Your task to perform on an android device: open a bookmark in the chrome app Image 0: 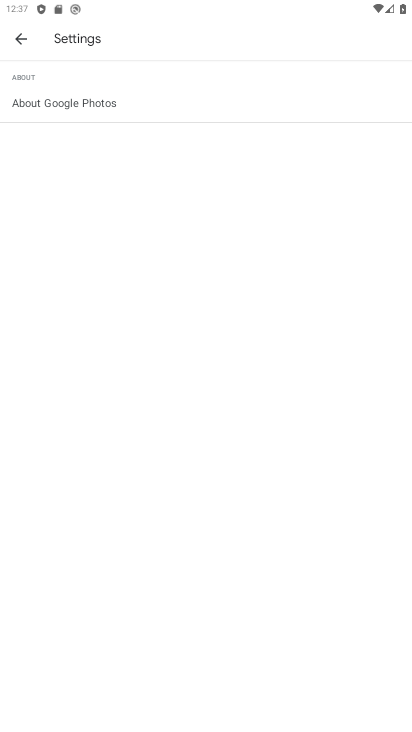
Step 0: press home button
Your task to perform on an android device: open a bookmark in the chrome app Image 1: 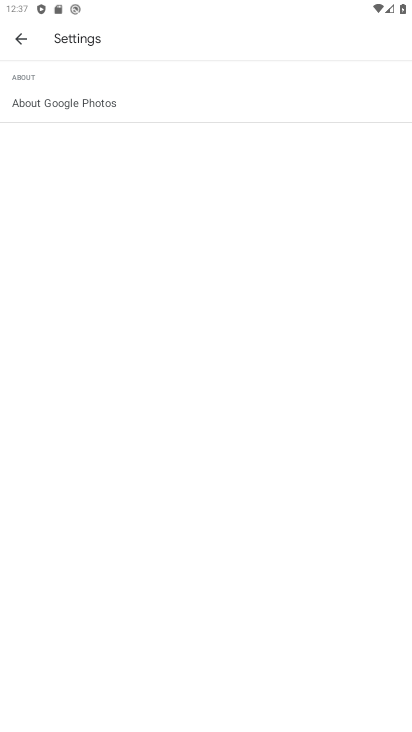
Step 1: press home button
Your task to perform on an android device: open a bookmark in the chrome app Image 2: 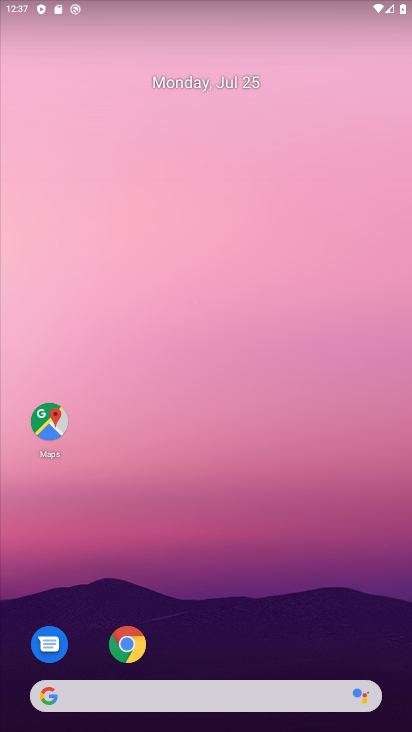
Step 2: drag from (208, 716) to (240, 3)
Your task to perform on an android device: open a bookmark in the chrome app Image 3: 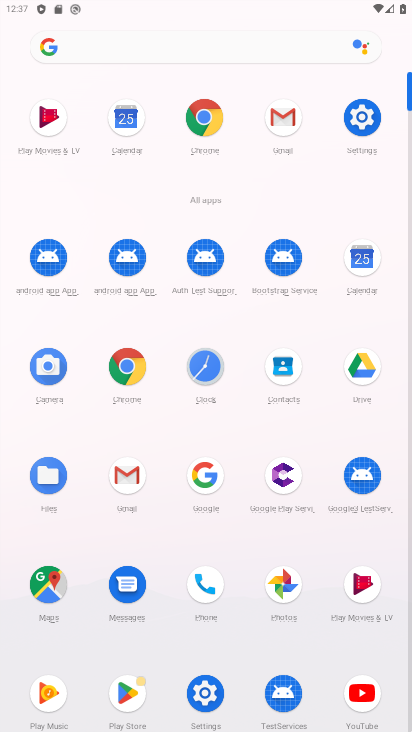
Step 3: click (128, 362)
Your task to perform on an android device: open a bookmark in the chrome app Image 4: 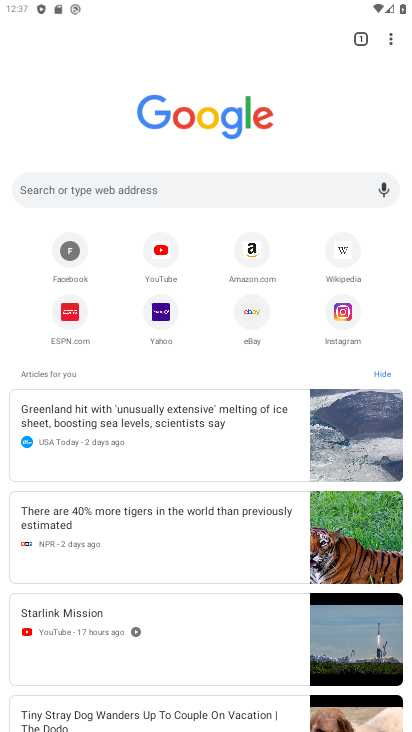
Step 4: click (391, 42)
Your task to perform on an android device: open a bookmark in the chrome app Image 5: 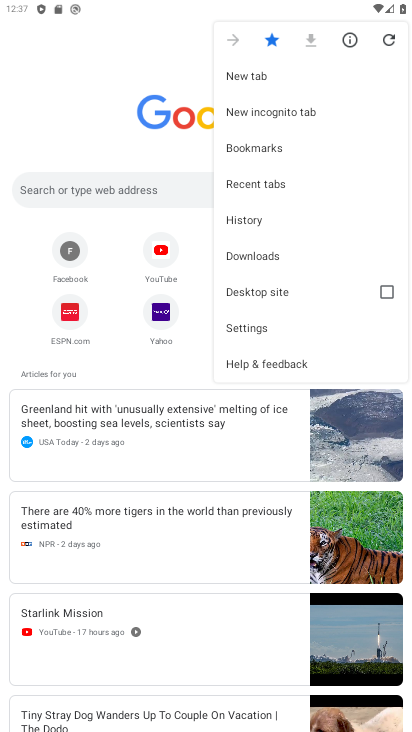
Step 5: click (249, 145)
Your task to perform on an android device: open a bookmark in the chrome app Image 6: 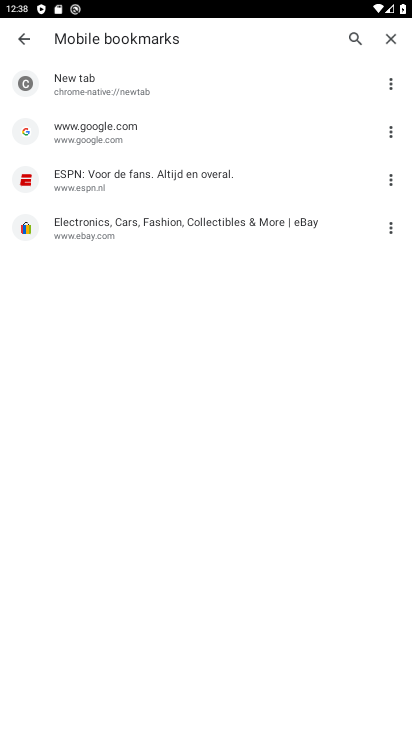
Step 6: click (154, 170)
Your task to perform on an android device: open a bookmark in the chrome app Image 7: 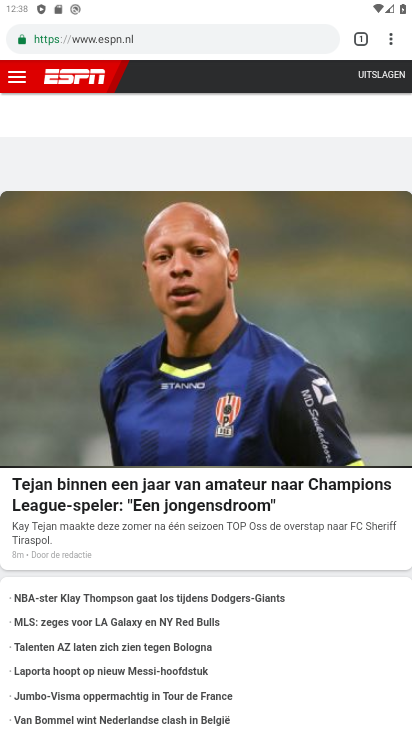
Step 7: task complete